Your task to perform on an android device: open a bookmark in the chrome app Image 0: 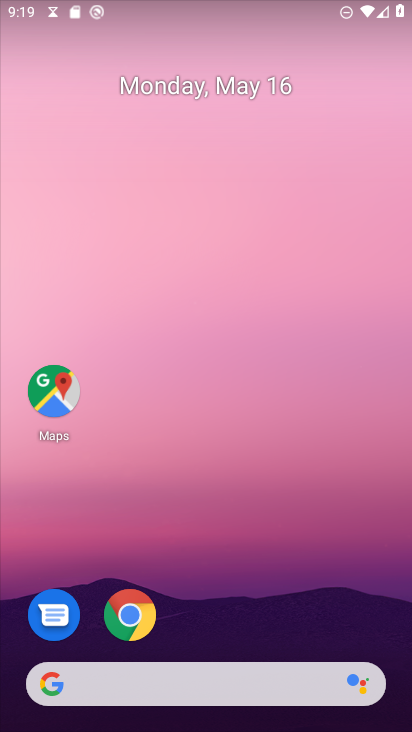
Step 0: click (136, 613)
Your task to perform on an android device: open a bookmark in the chrome app Image 1: 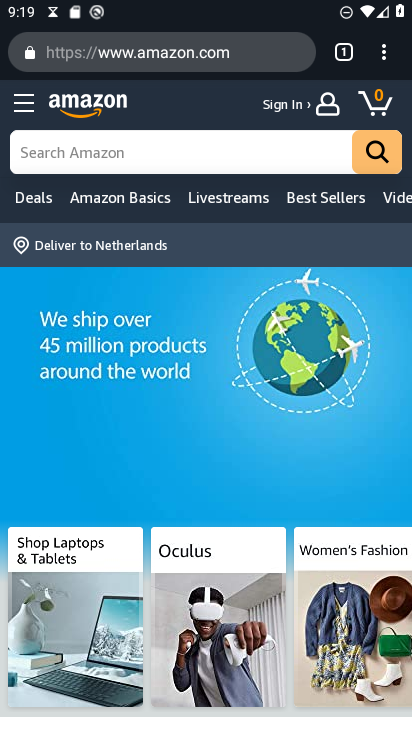
Step 1: click (377, 50)
Your task to perform on an android device: open a bookmark in the chrome app Image 2: 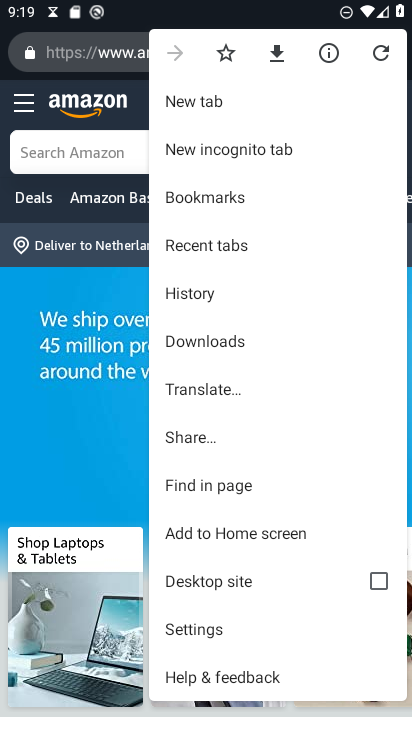
Step 2: click (186, 202)
Your task to perform on an android device: open a bookmark in the chrome app Image 3: 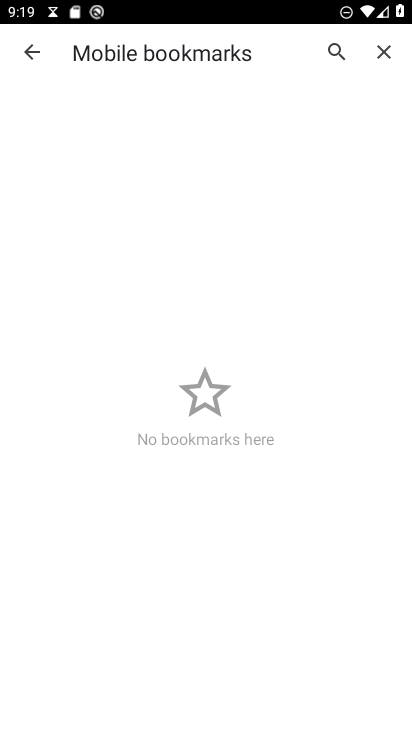
Step 3: task complete